Your task to perform on an android device: Open the stopwatch Image 0: 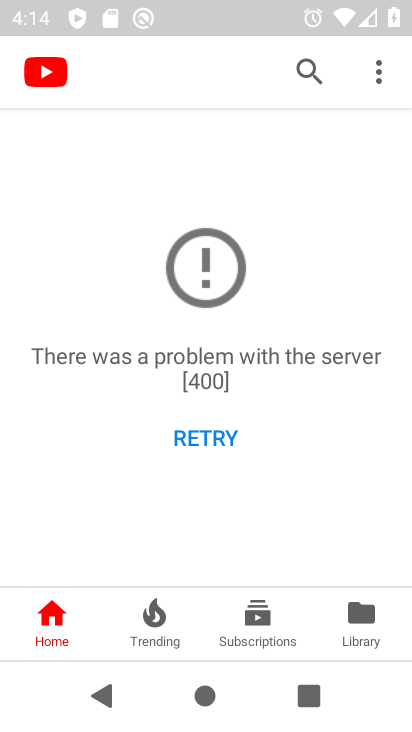
Step 0: press home button
Your task to perform on an android device: Open the stopwatch Image 1: 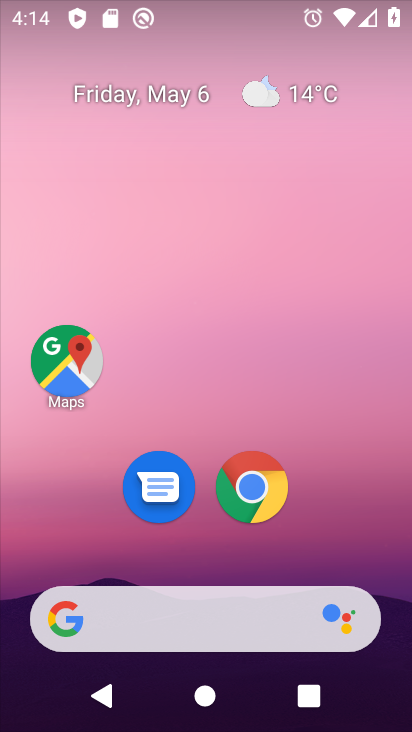
Step 1: drag from (203, 560) to (327, 80)
Your task to perform on an android device: Open the stopwatch Image 2: 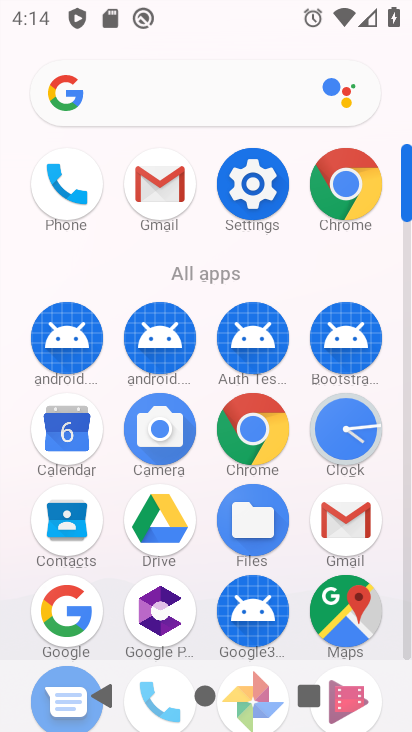
Step 2: click (334, 442)
Your task to perform on an android device: Open the stopwatch Image 3: 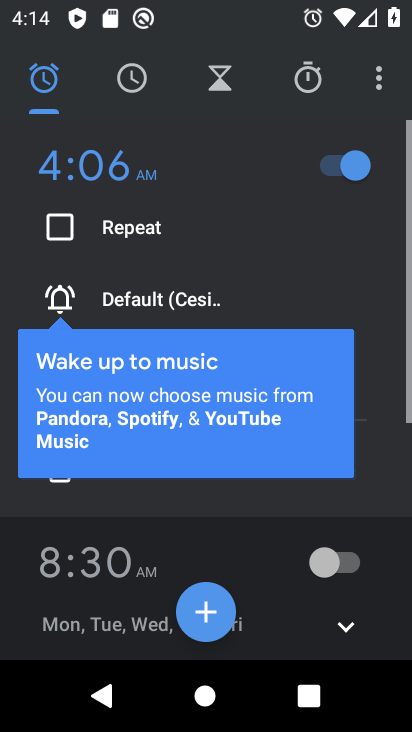
Step 3: click (299, 91)
Your task to perform on an android device: Open the stopwatch Image 4: 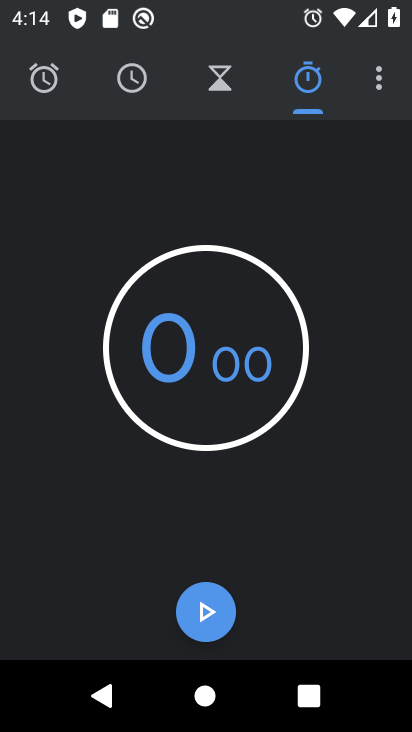
Step 4: task complete